Your task to perform on an android device: Search for vegetarian restaurants on Maps Image 0: 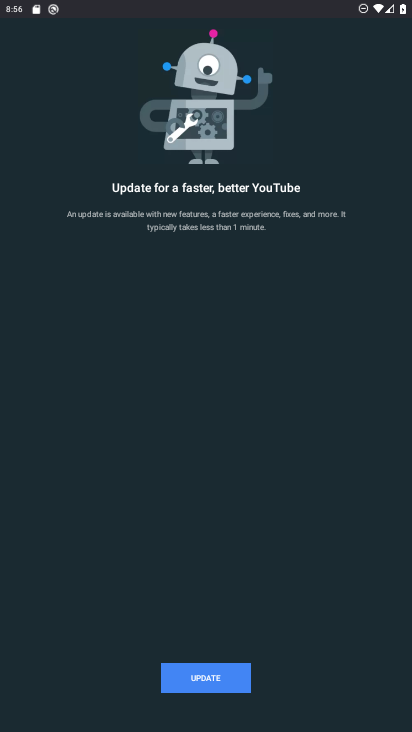
Step 0: press home button
Your task to perform on an android device: Search for vegetarian restaurants on Maps Image 1: 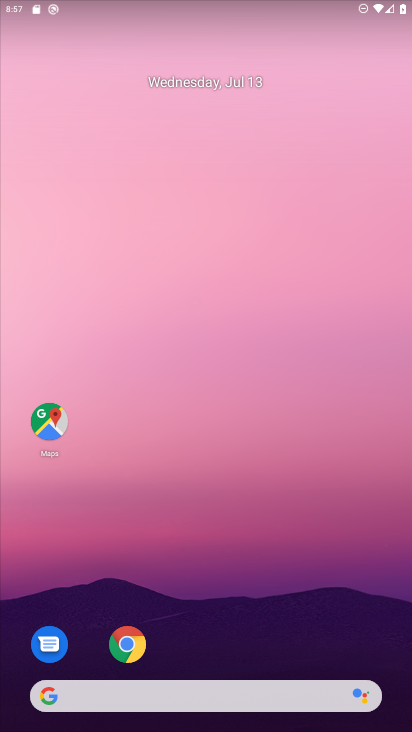
Step 1: click (58, 417)
Your task to perform on an android device: Search for vegetarian restaurants on Maps Image 2: 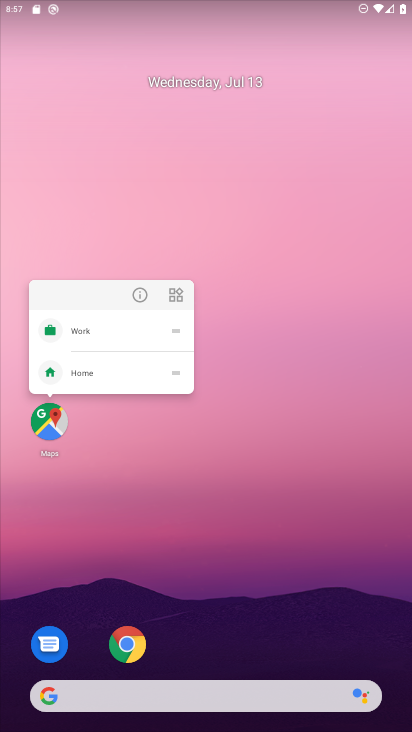
Step 2: click (57, 418)
Your task to perform on an android device: Search for vegetarian restaurants on Maps Image 3: 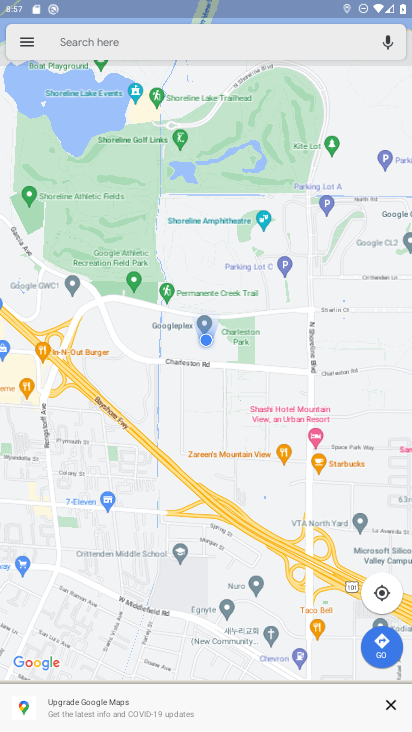
Step 3: type "vegetarian restaurants"
Your task to perform on an android device: Search for vegetarian restaurants on Maps Image 4: 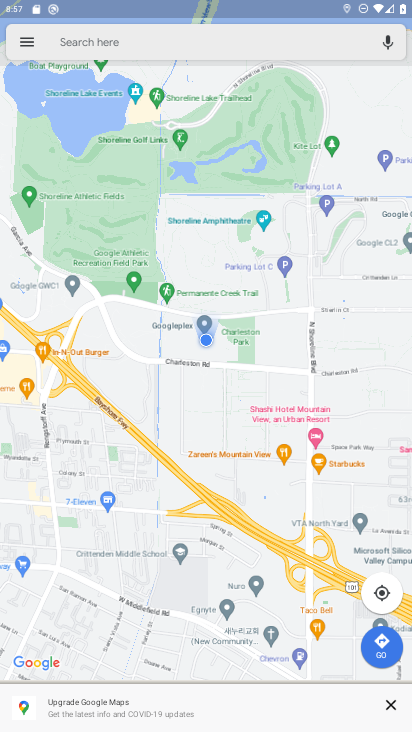
Step 4: click (118, 33)
Your task to perform on an android device: Search for vegetarian restaurants on Maps Image 5: 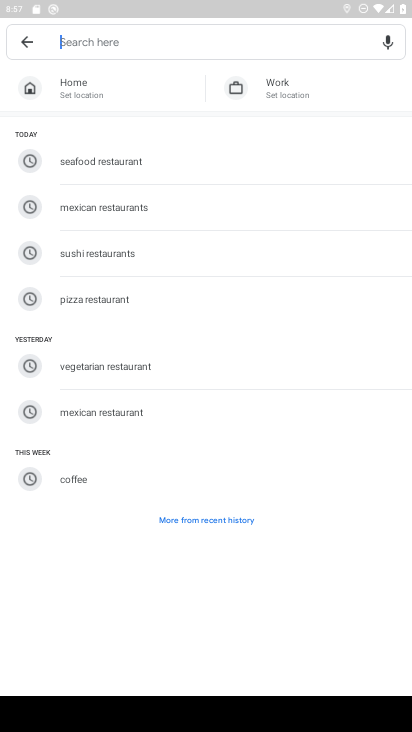
Step 5: click (111, 40)
Your task to perform on an android device: Search for vegetarian restaurants on Maps Image 6: 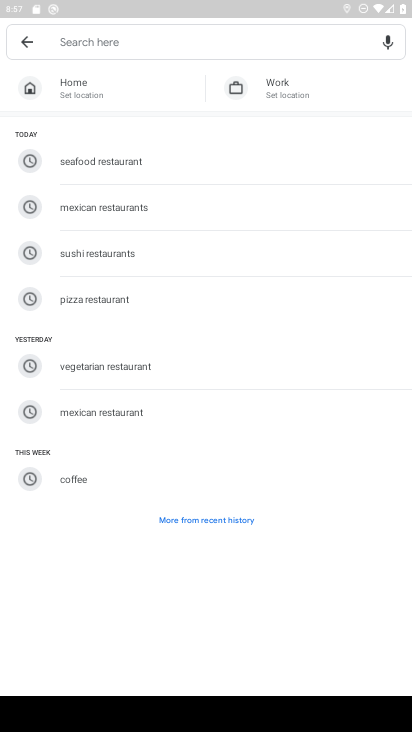
Step 6: click (139, 372)
Your task to perform on an android device: Search for vegetarian restaurants on Maps Image 7: 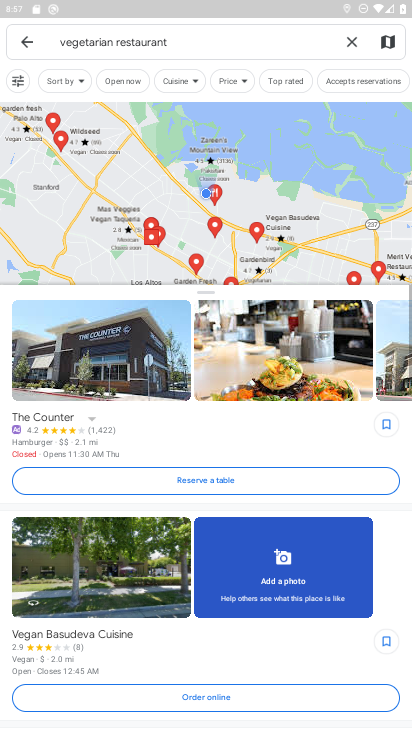
Step 7: task complete